Your task to perform on an android device: turn on improve location accuracy Image 0: 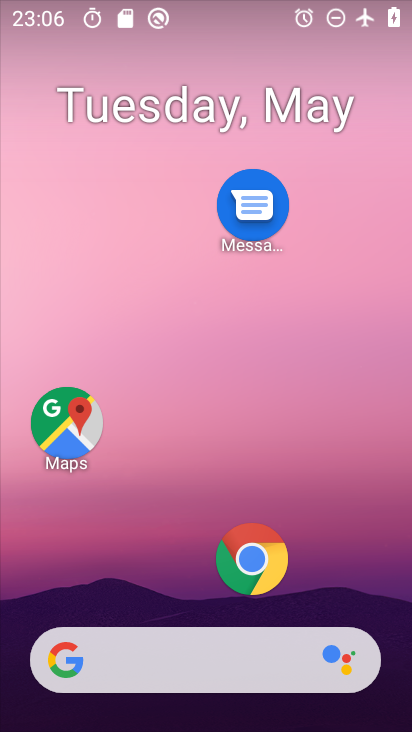
Step 0: drag from (182, 601) to (163, 132)
Your task to perform on an android device: turn on improve location accuracy Image 1: 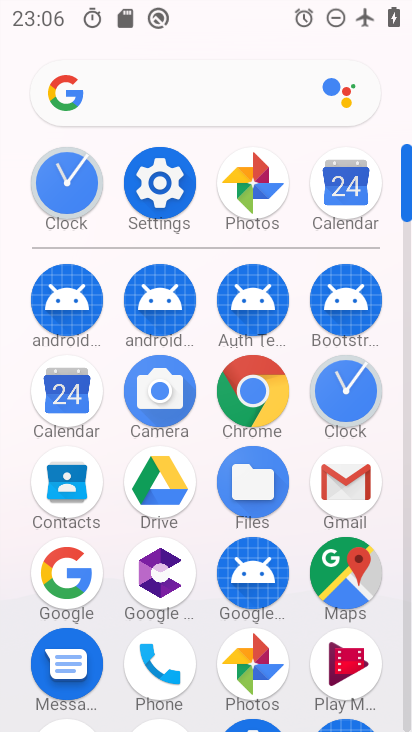
Step 1: click (166, 192)
Your task to perform on an android device: turn on improve location accuracy Image 2: 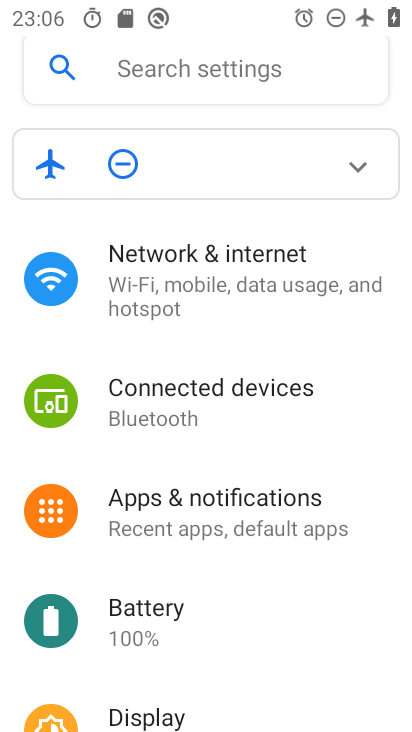
Step 2: drag from (236, 661) to (251, 279)
Your task to perform on an android device: turn on improve location accuracy Image 3: 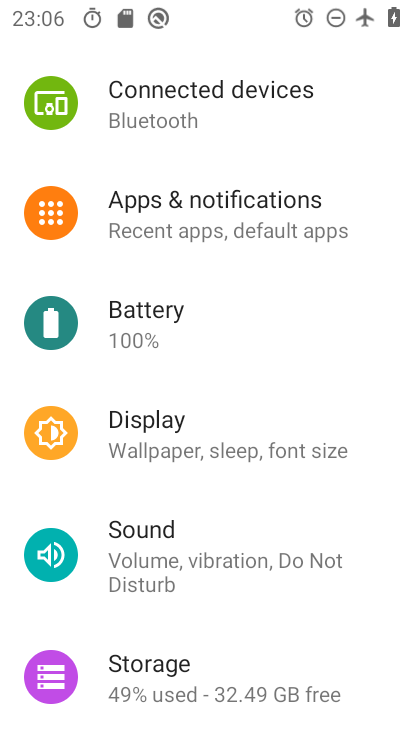
Step 3: drag from (239, 683) to (213, 340)
Your task to perform on an android device: turn on improve location accuracy Image 4: 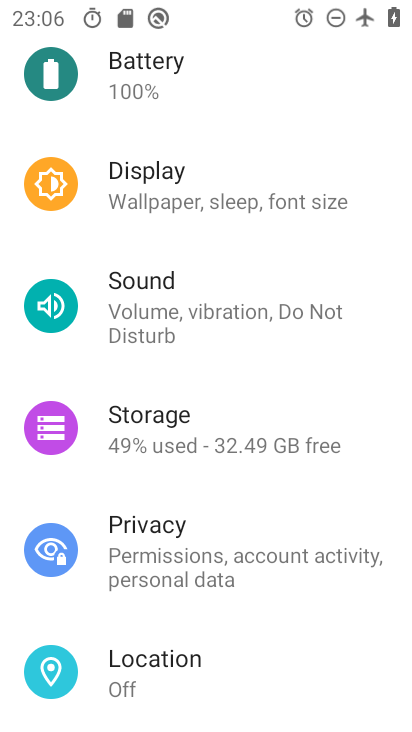
Step 4: click (192, 697)
Your task to perform on an android device: turn on improve location accuracy Image 5: 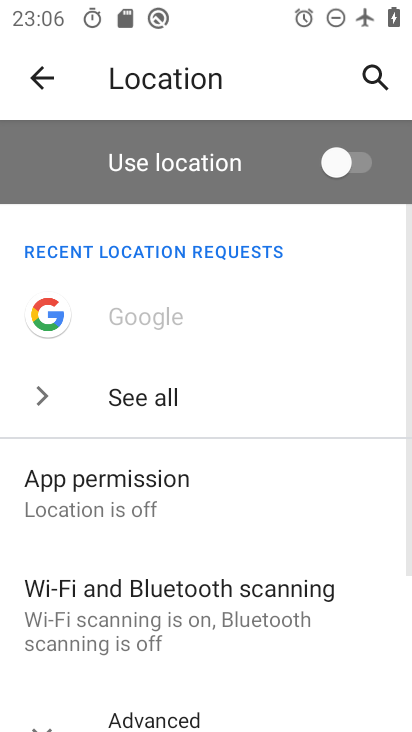
Step 5: drag from (175, 635) to (214, 305)
Your task to perform on an android device: turn on improve location accuracy Image 6: 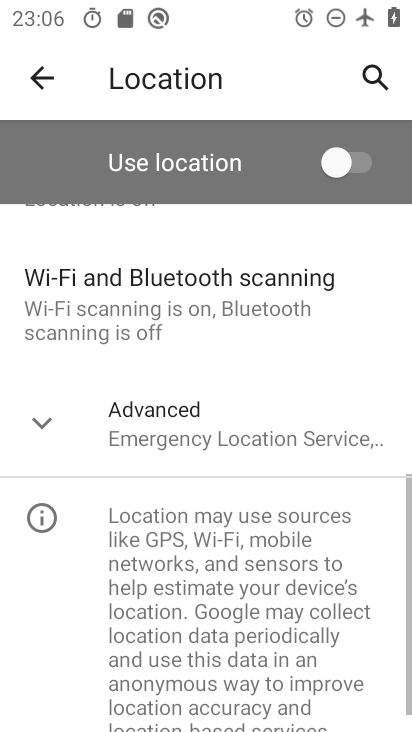
Step 6: click (198, 422)
Your task to perform on an android device: turn on improve location accuracy Image 7: 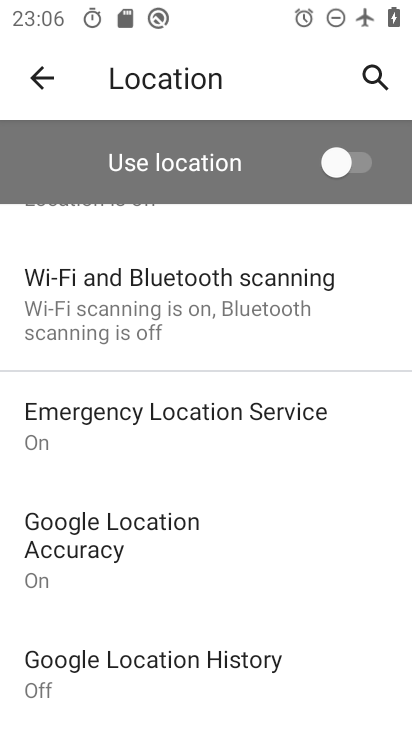
Step 7: click (190, 522)
Your task to perform on an android device: turn on improve location accuracy Image 8: 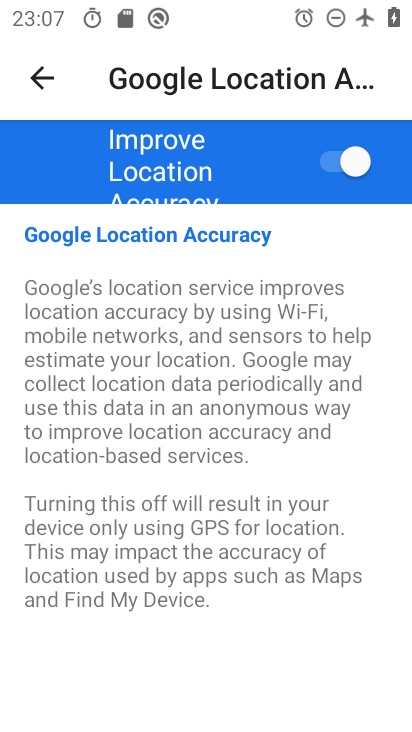
Step 8: task complete